Your task to perform on an android device: Open battery settings Image 0: 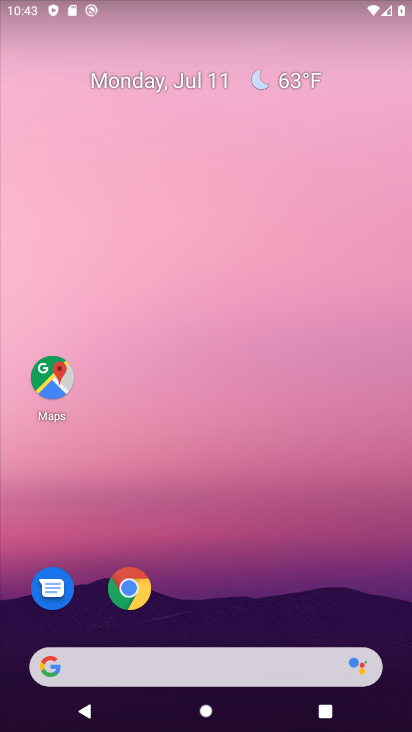
Step 0: drag from (234, 709) to (216, 80)
Your task to perform on an android device: Open battery settings Image 1: 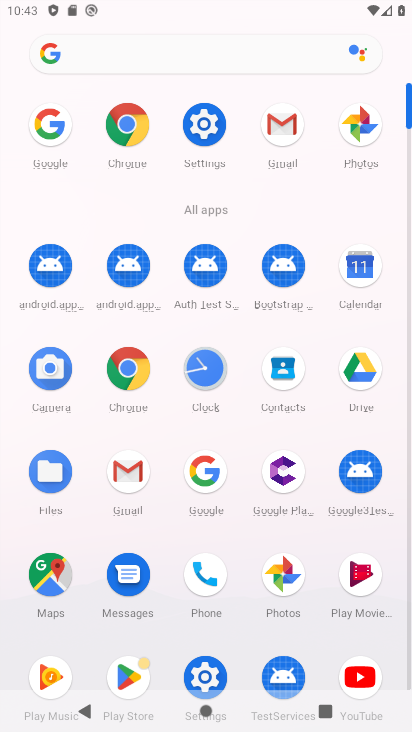
Step 1: click (199, 123)
Your task to perform on an android device: Open battery settings Image 2: 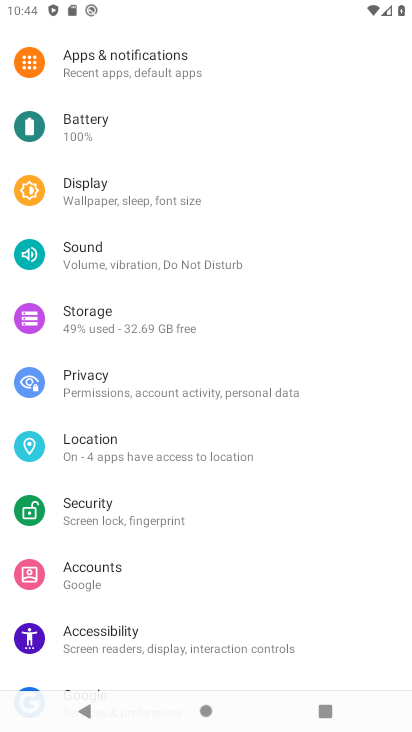
Step 2: click (91, 128)
Your task to perform on an android device: Open battery settings Image 3: 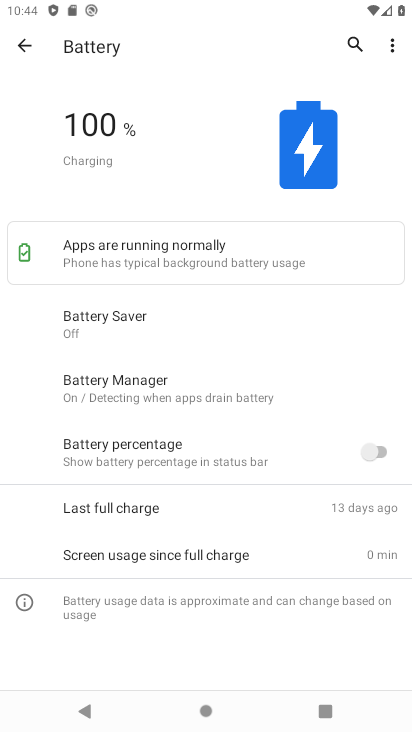
Step 3: task complete